Your task to perform on an android device: open chrome and create a bookmark for the current page Image 0: 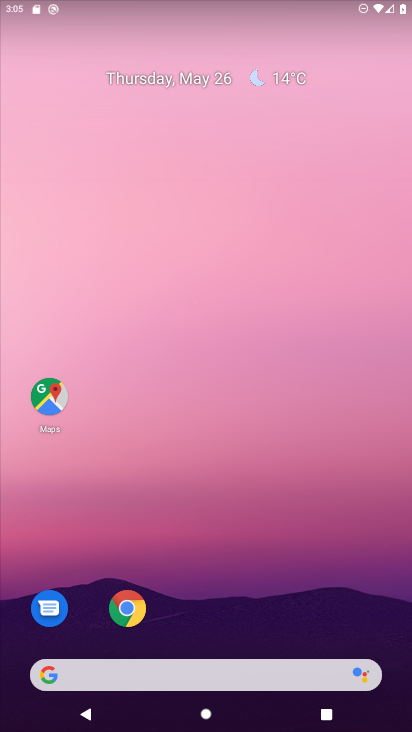
Step 0: drag from (254, 578) to (315, 52)
Your task to perform on an android device: open chrome and create a bookmark for the current page Image 1: 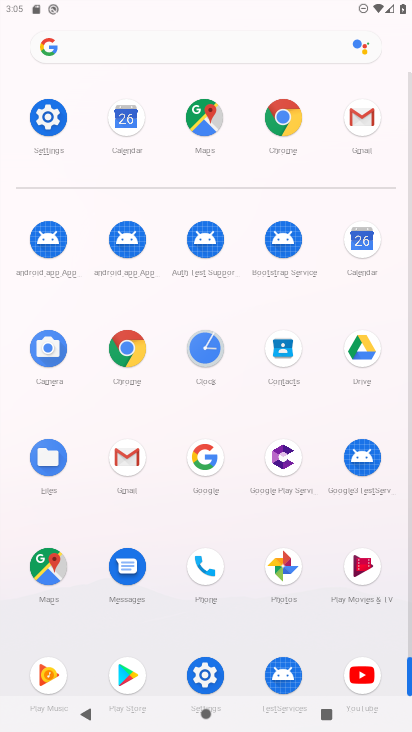
Step 1: click (284, 116)
Your task to perform on an android device: open chrome and create a bookmark for the current page Image 2: 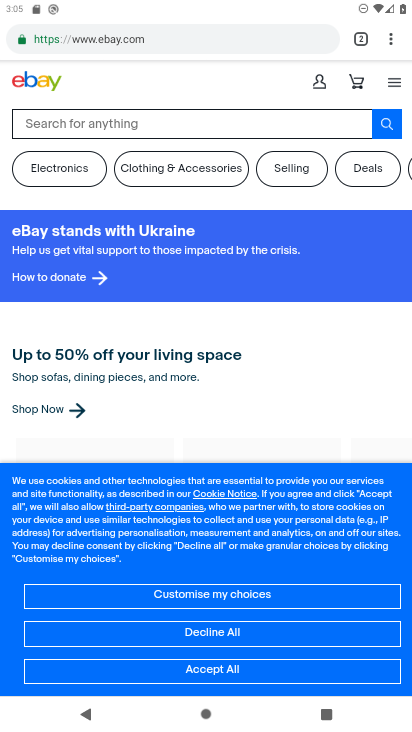
Step 2: task complete